Your task to perform on an android device: Go to privacy settings Image 0: 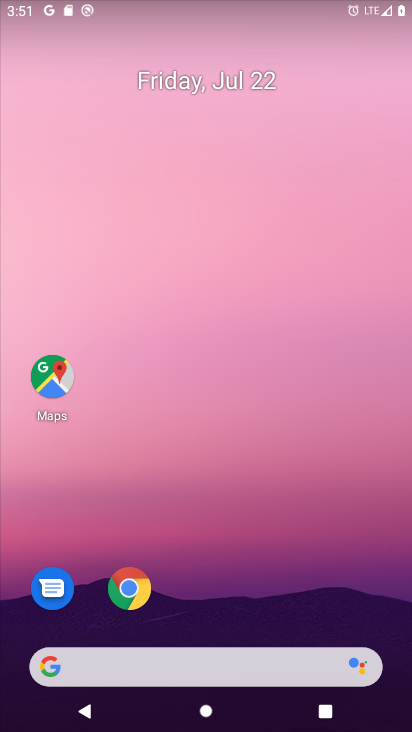
Step 0: drag from (261, 627) to (244, 188)
Your task to perform on an android device: Go to privacy settings Image 1: 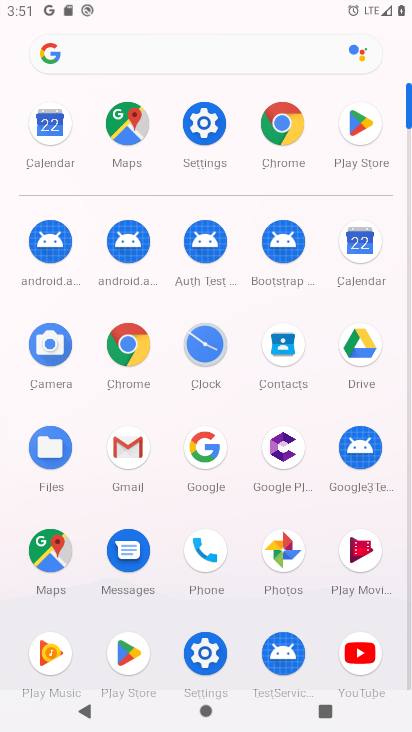
Step 1: click (213, 642)
Your task to perform on an android device: Go to privacy settings Image 2: 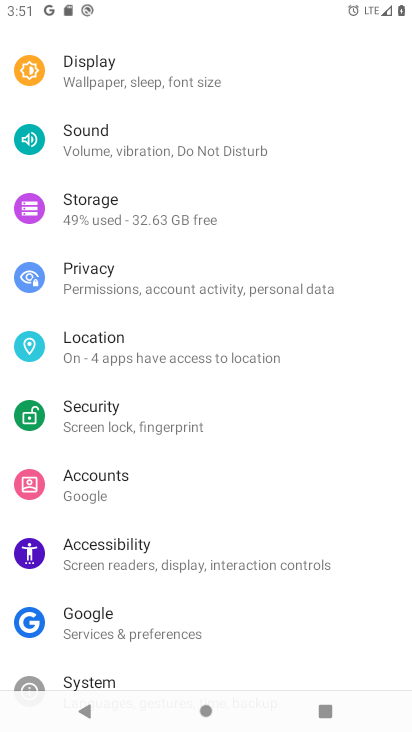
Step 2: drag from (238, 572) to (256, 287)
Your task to perform on an android device: Go to privacy settings Image 3: 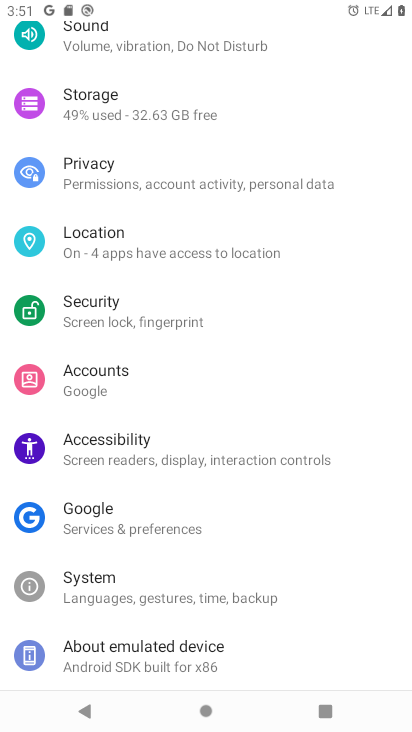
Step 3: click (82, 160)
Your task to perform on an android device: Go to privacy settings Image 4: 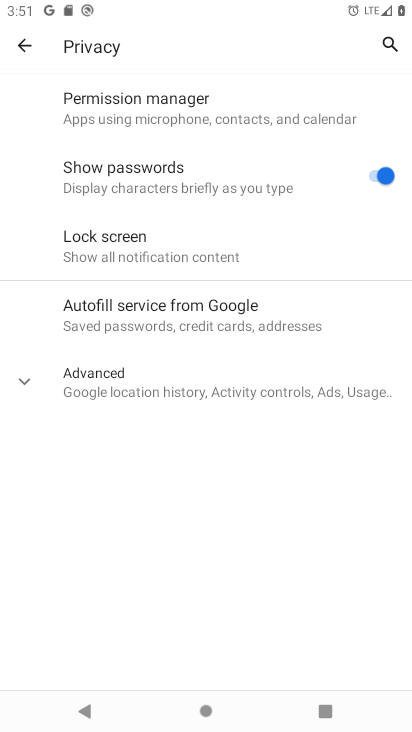
Step 4: task complete